Your task to perform on an android device: turn on the 24-hour format for clock Image 0: 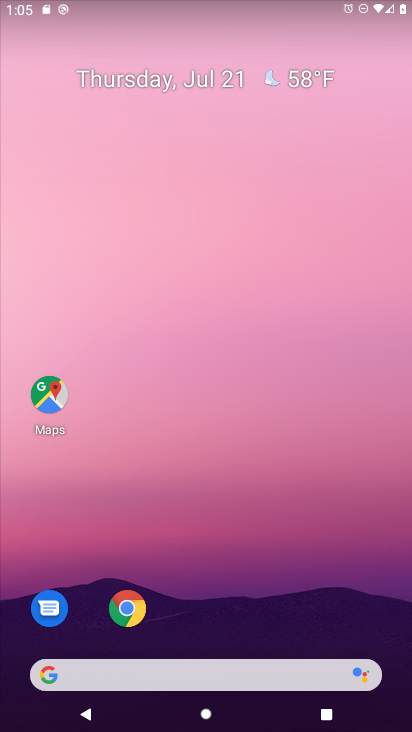
Step 0: press home button
Your task to perform on an android device: turn on the 24-hour format for clock Image 1: 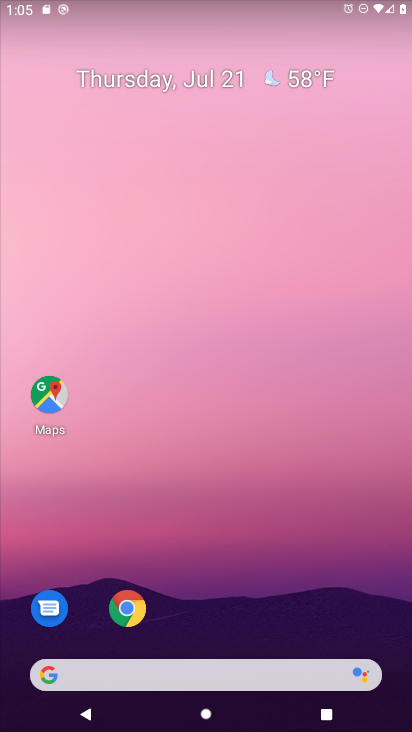
Step 1: drag from (200, 624) to (280, 9)
Your task to perform on an android device: turn on the 24-hour format for clock Image 2: 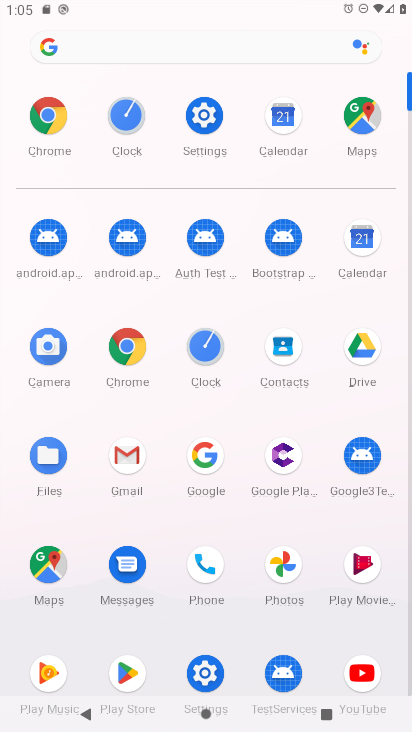
Step 2: click (203, 125)
Your task to perform on an android device: turn on the 24-hour format for clock Image 3: 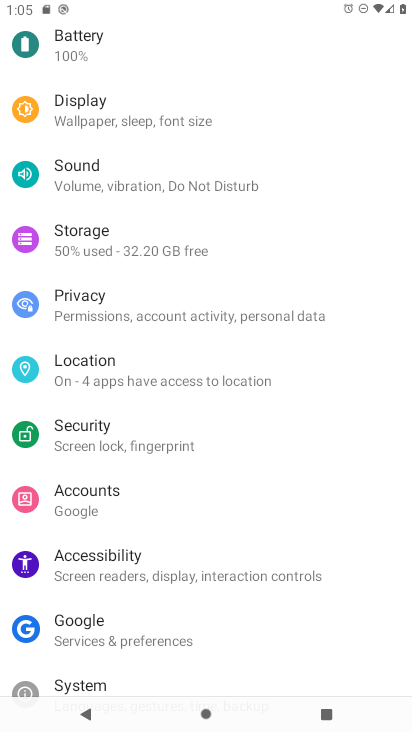
Step 3: click (82, 691)
Your task to perform on an android device: turn on the 24-hour format for clock Image 4: 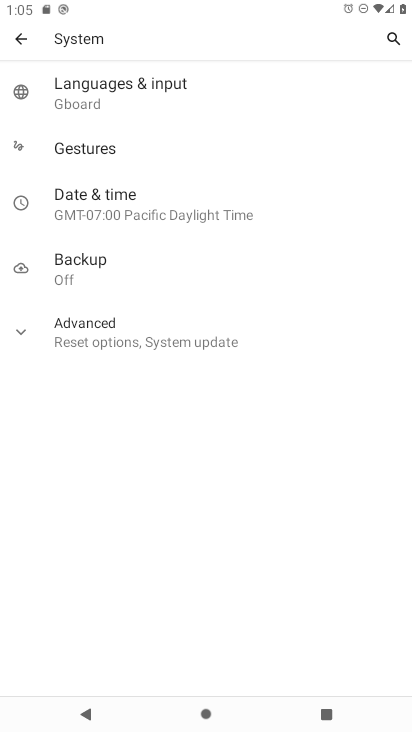
Step 4: click (89, 209)
Your task to perform on an android device: turn on the 24-hour format for clock Image 5: 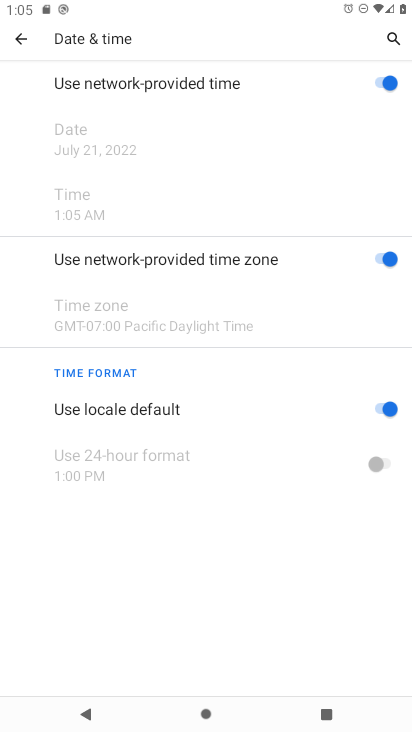
Step 5: click (93, 235)
Your task to perform on an android device: turn on the 24-hour format for clock Image 6: 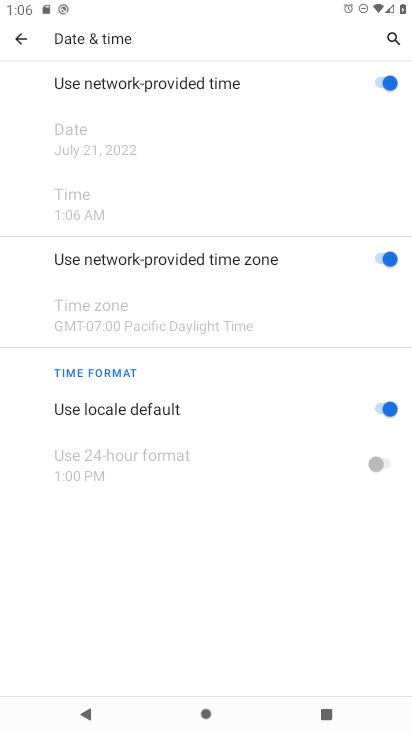
Step 6: click (393, 405)
Your task to perform on an android device: turn on the 24-hour format for clock Image 7: 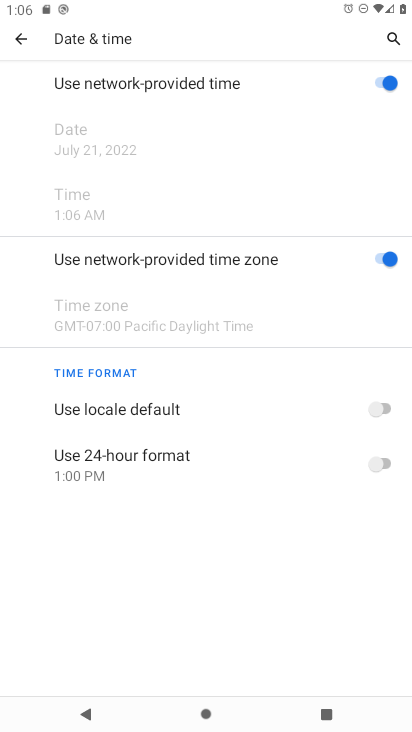
Step 7: click (375, 472)
Your task to perform on an android device: turn on the 24-hour format for clock Image 8: 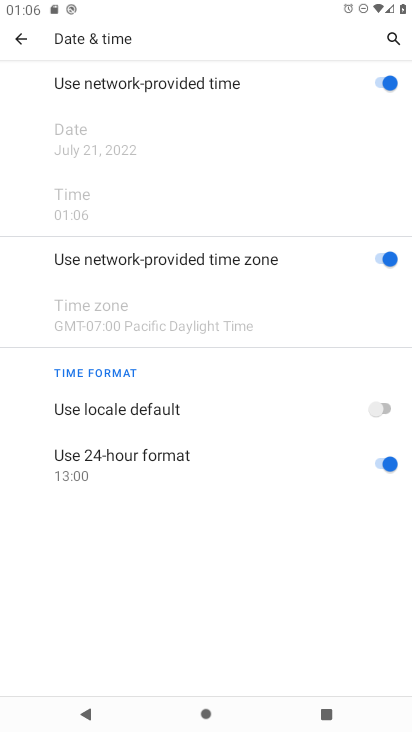
Step 8: task complete